Your task to perform on an android device: open app "Google Maps" (install if not already installed) Image 0: 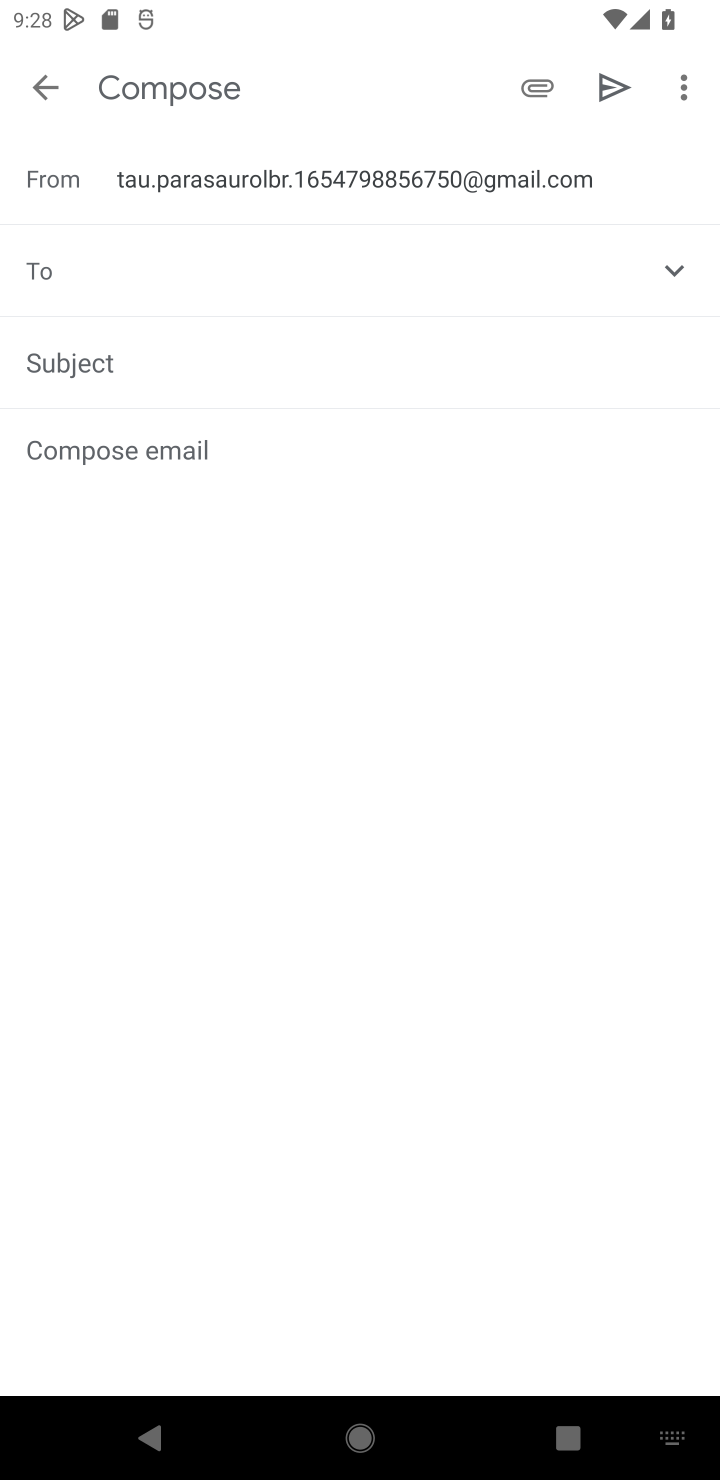
Step 0: press home button
Your task to perform on an android device: open app "Google Maps" (install if not already installed) Image 1: 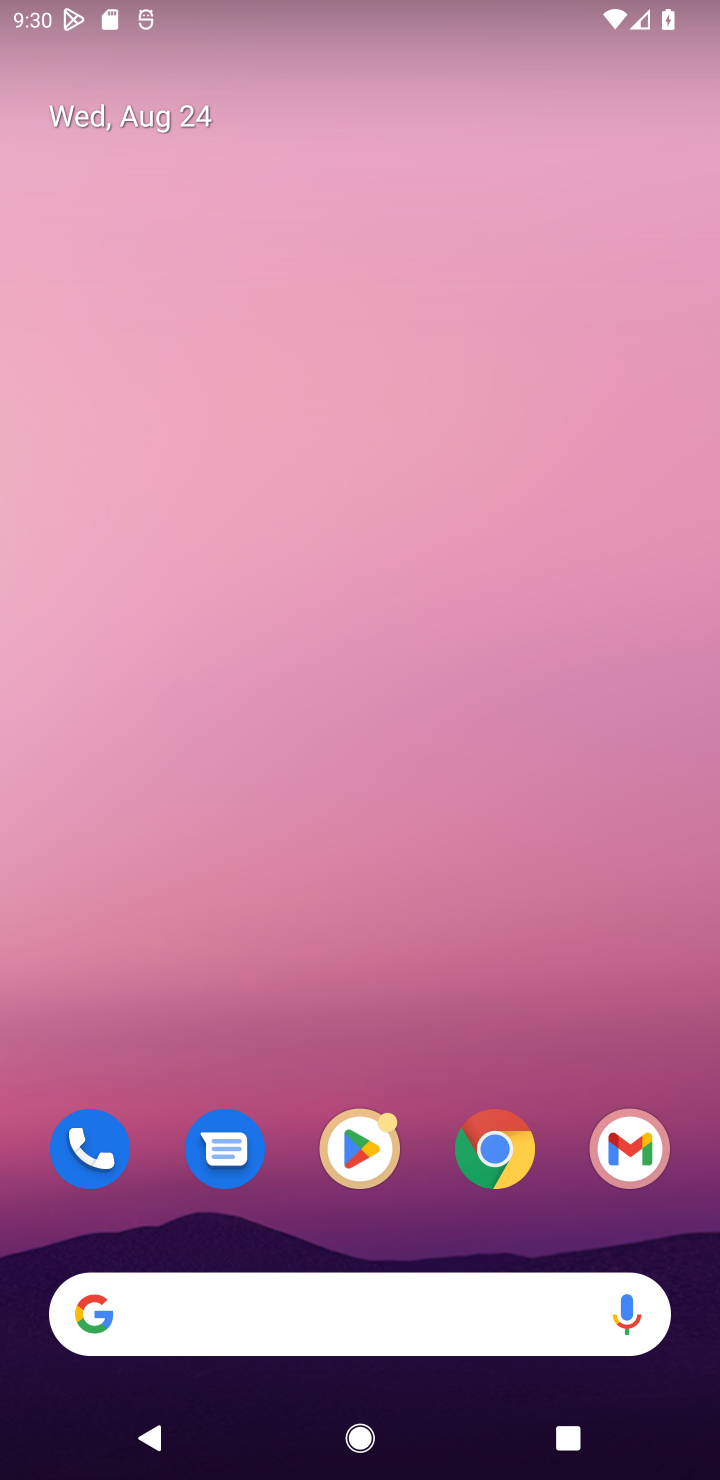
Step 1: drag from (325, 989) to (187, 92)
Your task to perform on an android device: open app "Google Maps" (install if not already installed) Image 2: 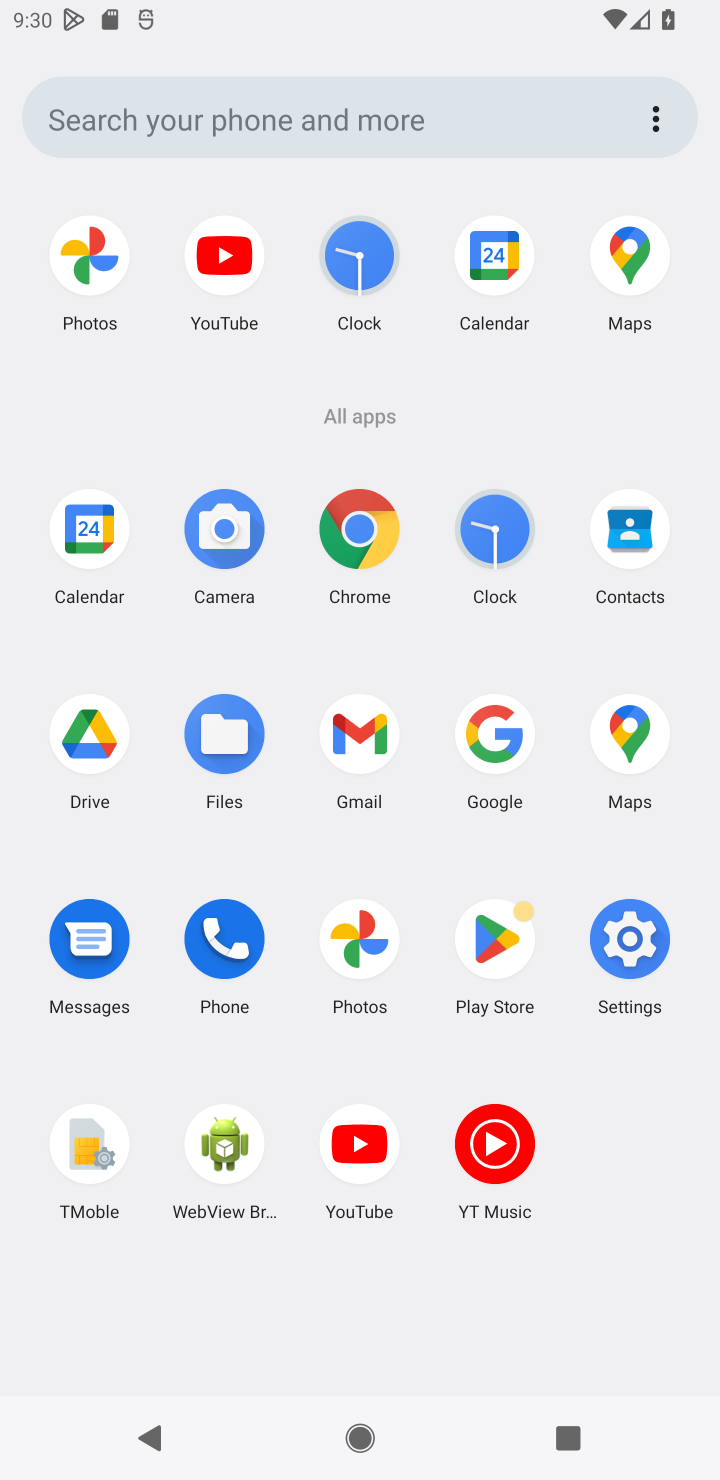
Step 2: click (515, 965)
Your task to perform on an android device: open app "Google Maps" (install if not already installed) Image 3: 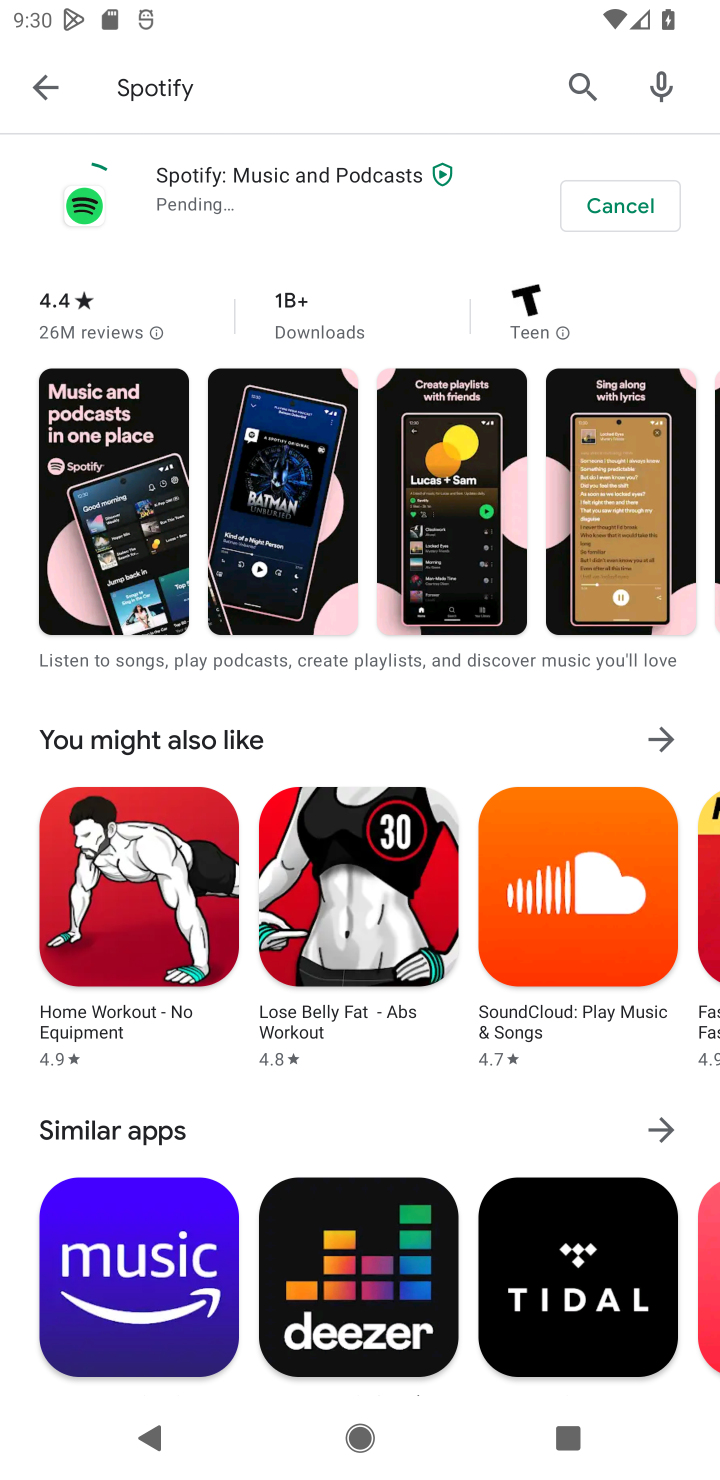
Step 3: press back button
Your task to perform on an android device: open app "Google Maps" (install if not already installed) Image 4: 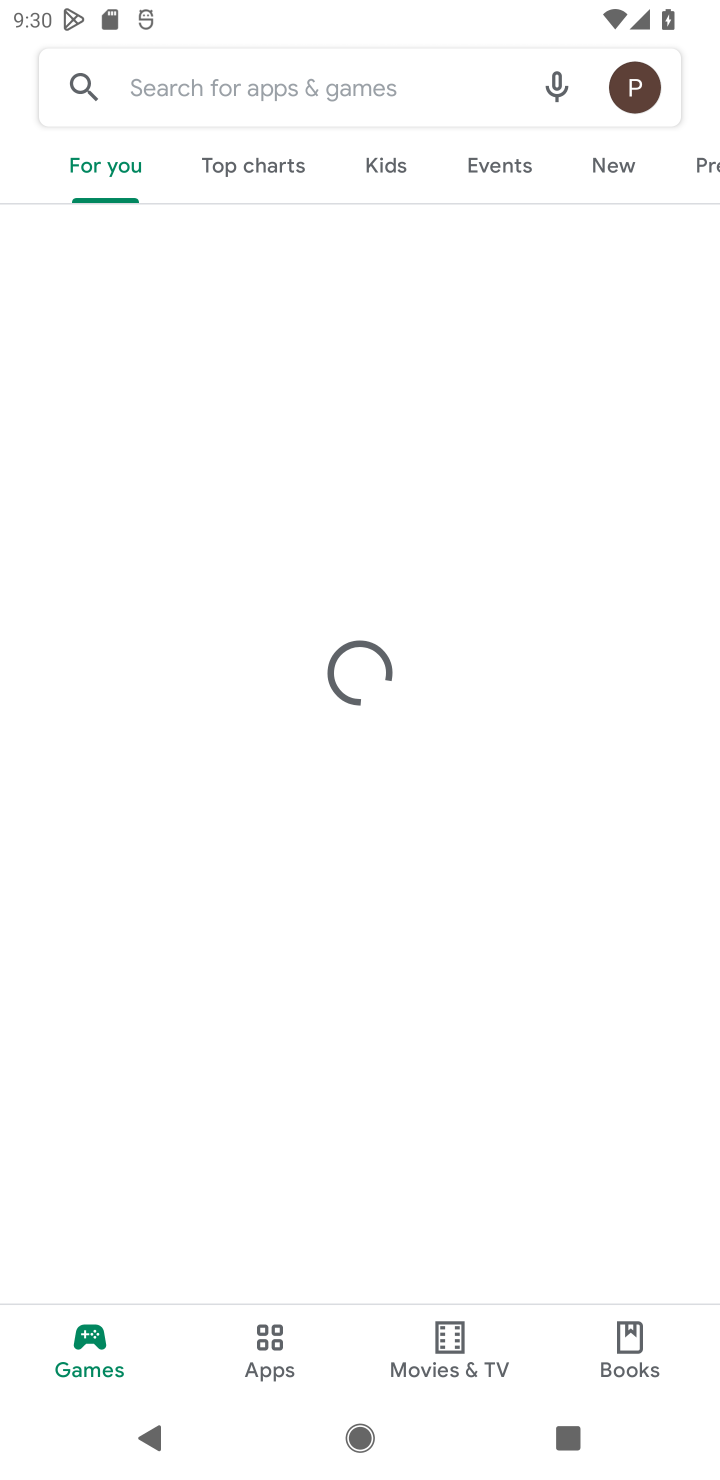
Step 4: click (231, 71)
Your task to perform on an android device: open app "Google Maps" (install if not already installed) Image 5: 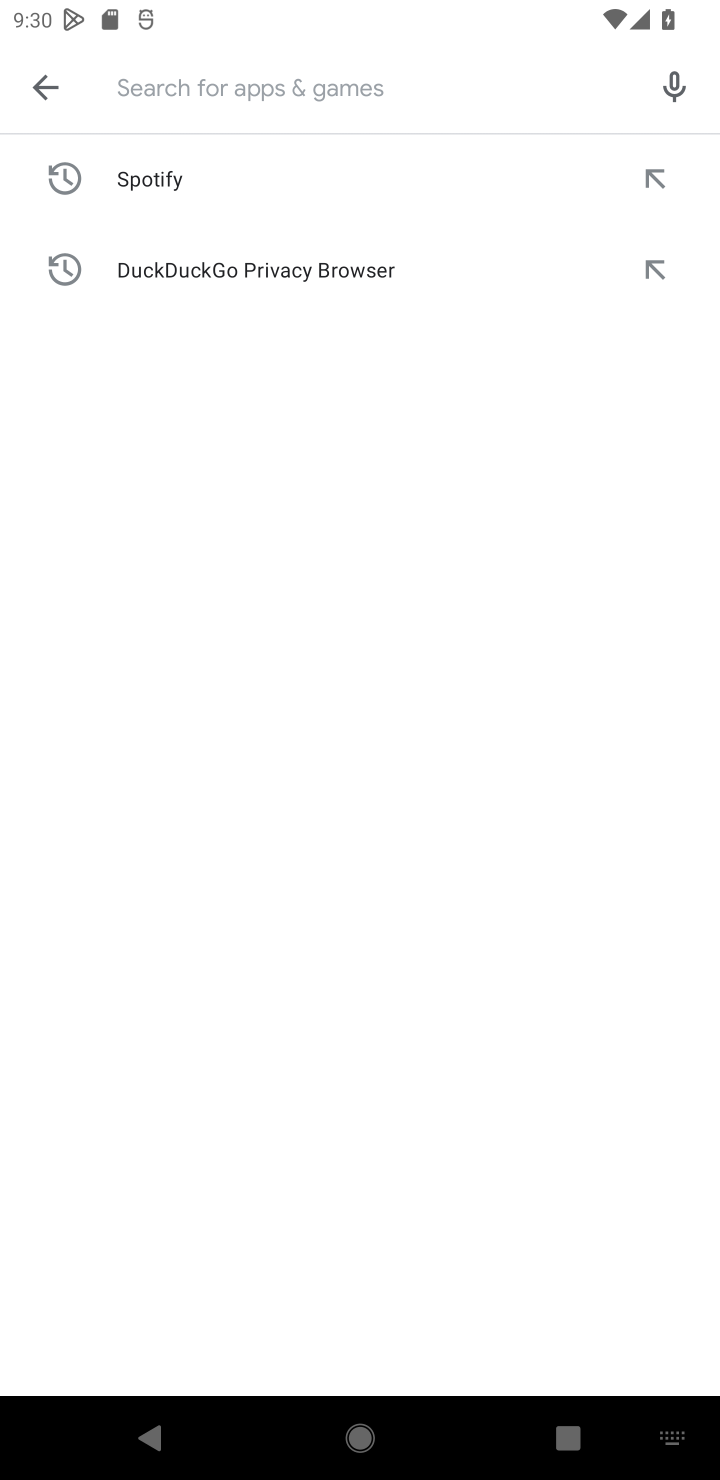
Step 5: type "Google Maps"
Your task to perform on an android device: open app "Google Maps" (install if not already installed) Image 6: 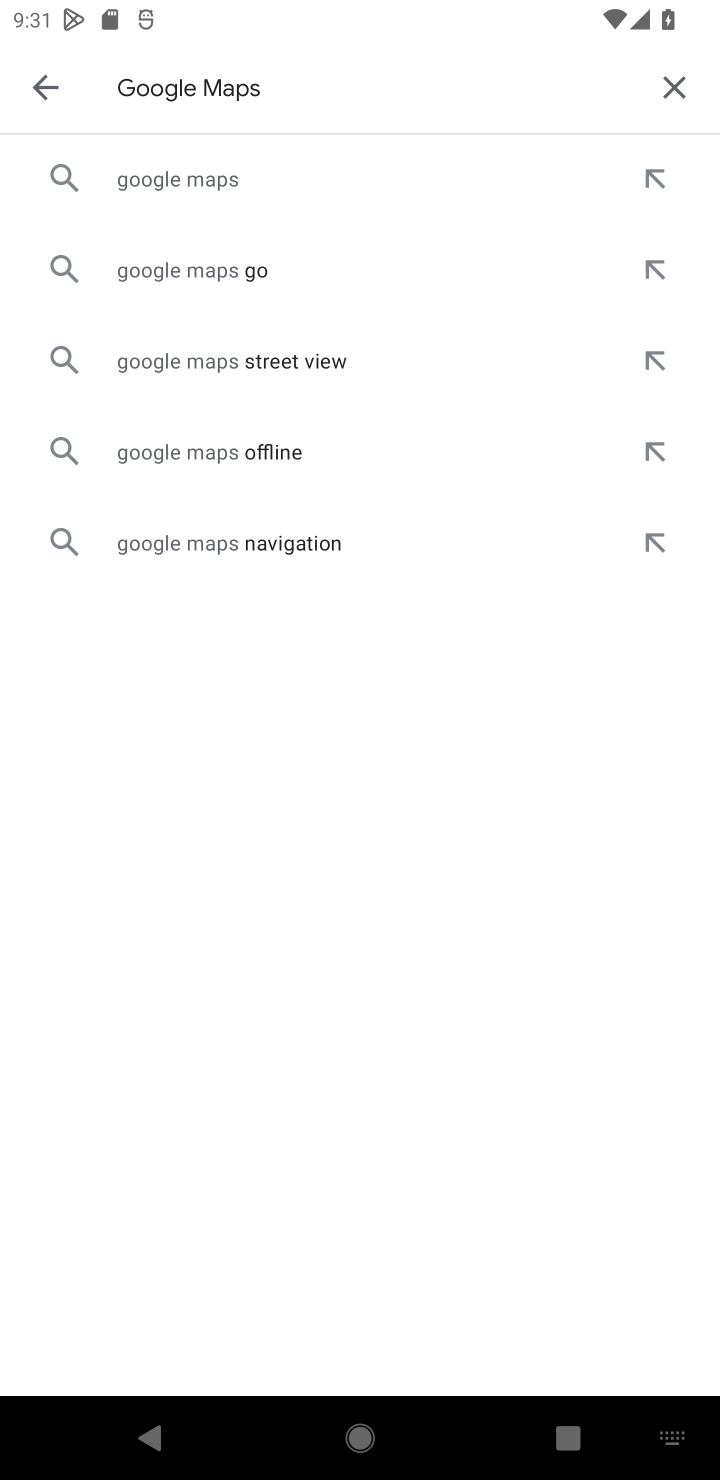
Step 6: click (202, 172)
Your task to perform on an android device: open app "Google Maps" (install if not already installed) Image 7: 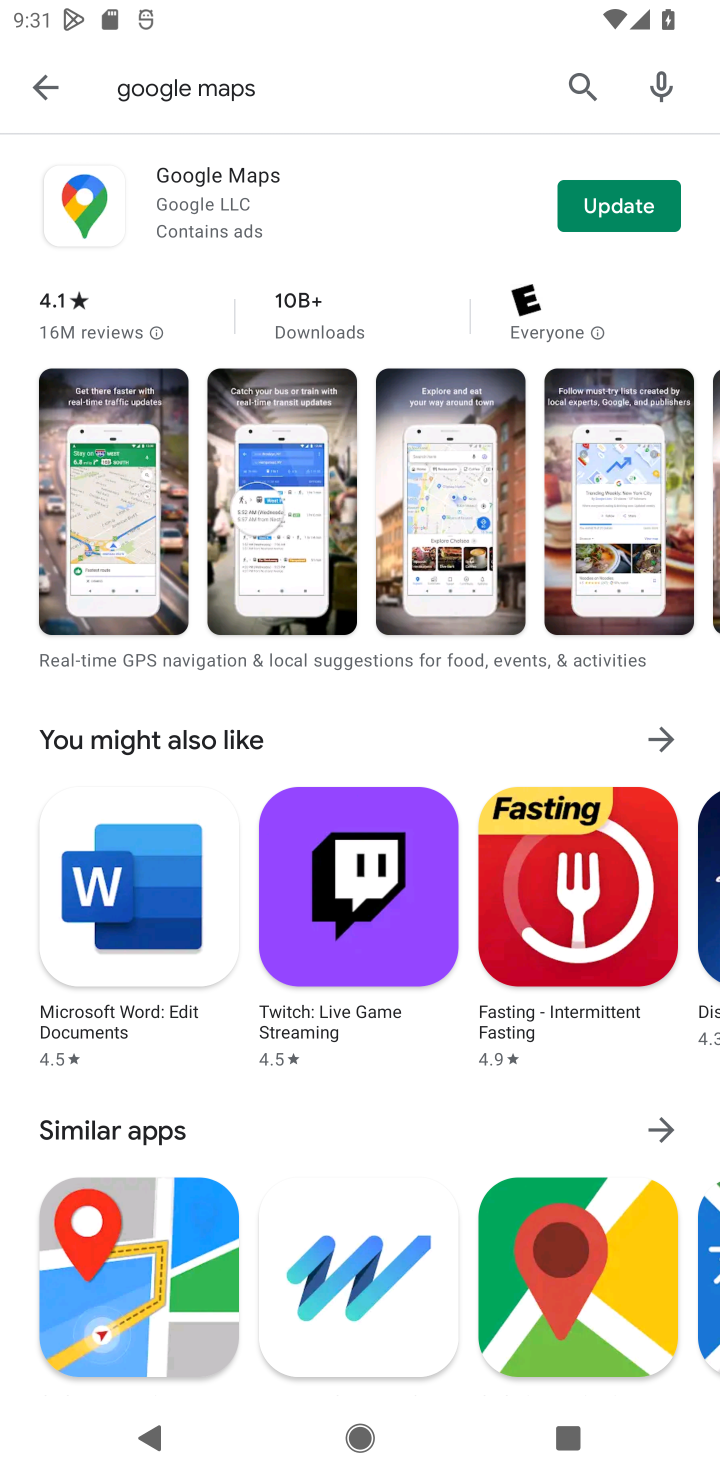
Step 7: click (627, 216)
Your task to perform on an android device: open app "Google Maps" (install if not already installed) Image 8: 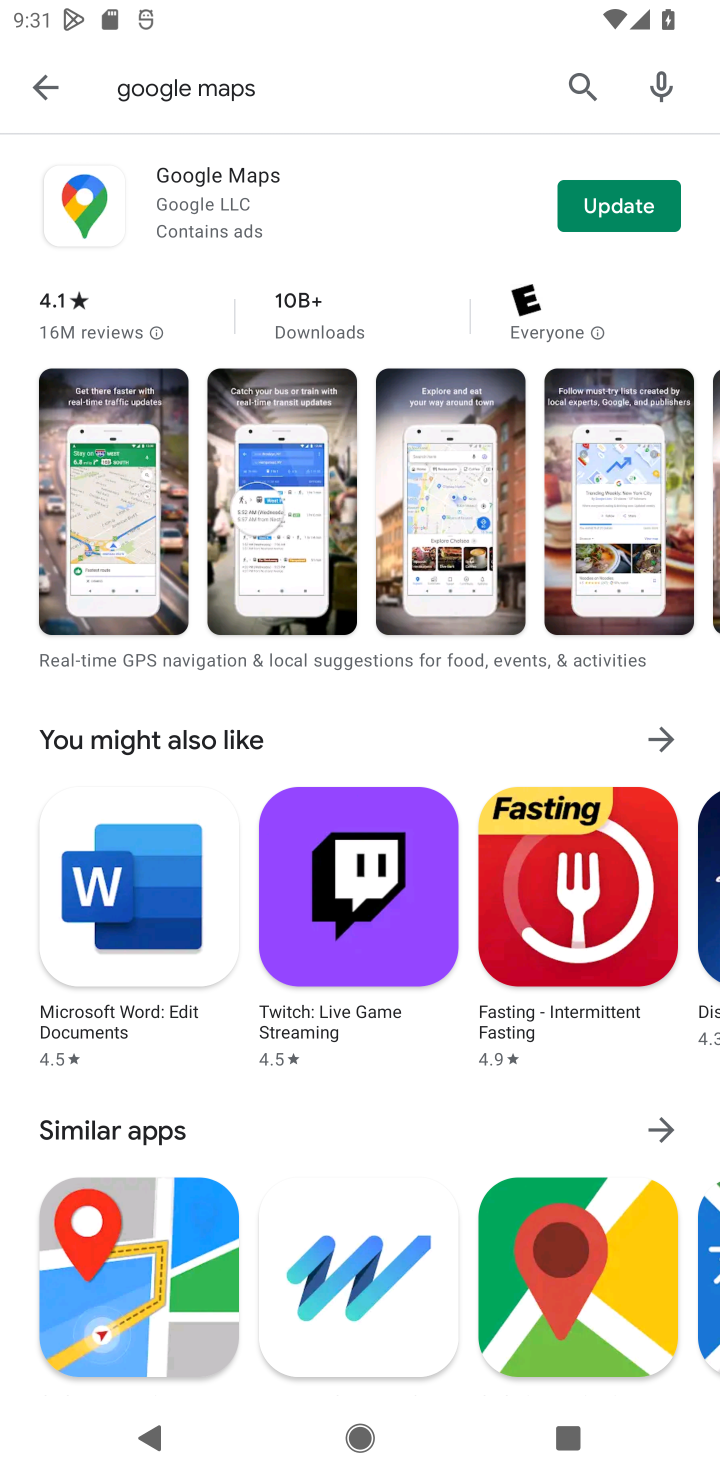
Step 8: task complete